Your task to perform on an android device: Open the map Image 0: 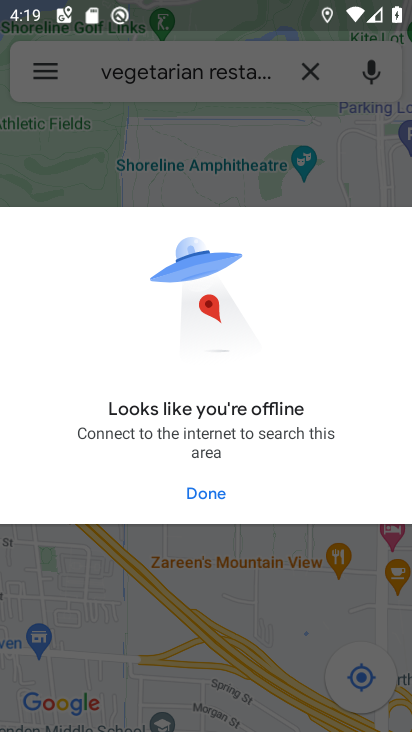
Step 0: press home button
Your task to perform on an android device: Open the map Image 1: 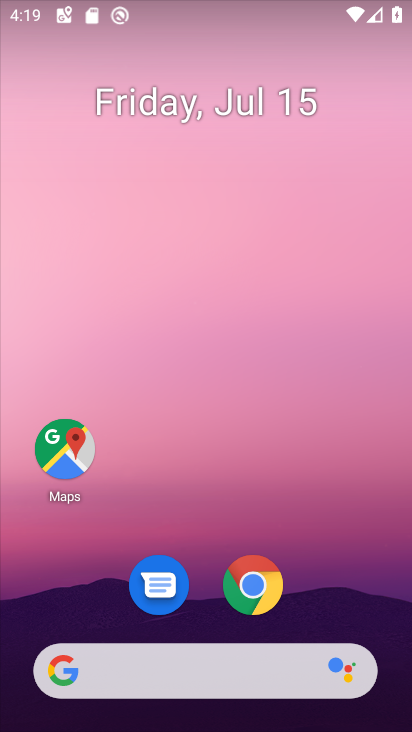
Step 1: click (69, 454)
Your task to perform on an android device: Open the map Image 2: 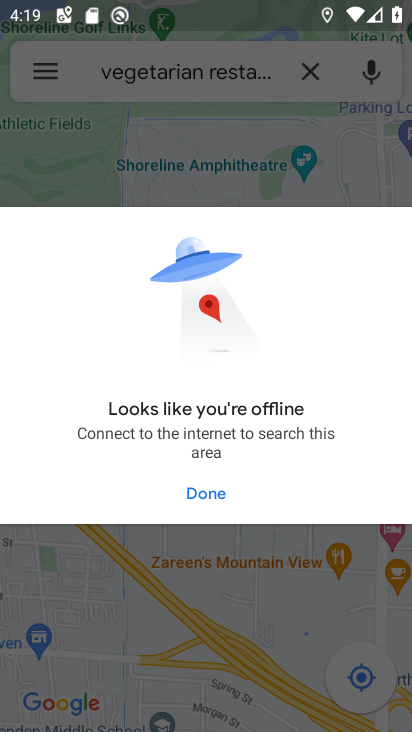
Step 2: click (200, 487)
Your task to perform on an android device: Open the map Image 3: 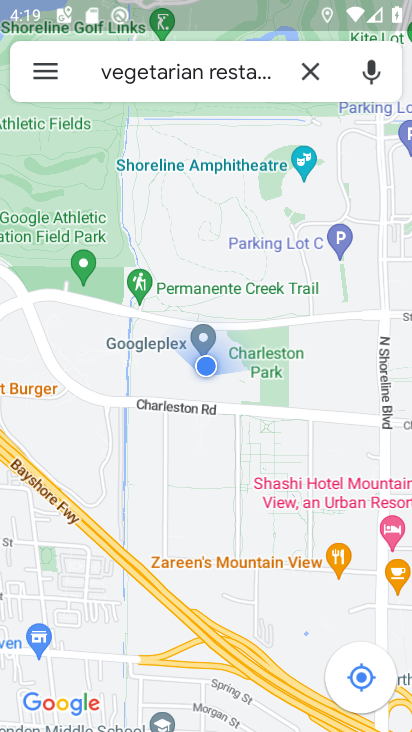
Step 3: click (303, 63)
Your task to perform on an android device: Open the map Image 4: 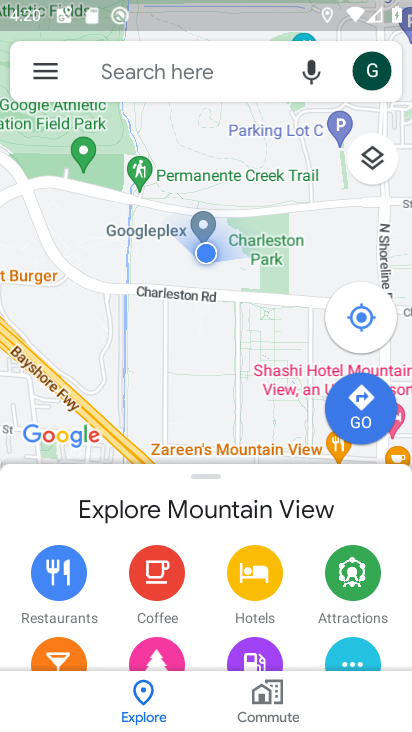
Step 4: task complete